Your task to perform on an android device: Search for vegetarian restaurants on Maps Image 0: 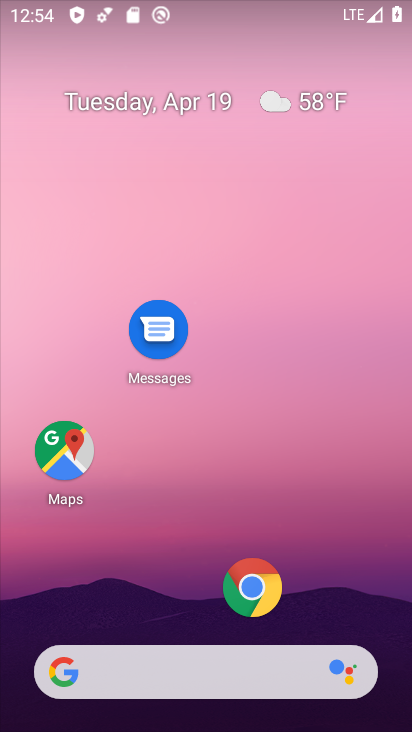
Step 0: drag from (179, 547) to (157, 87)
Your task to perform on an android device: Search for vegetarian restaurants on Maps Image 1: 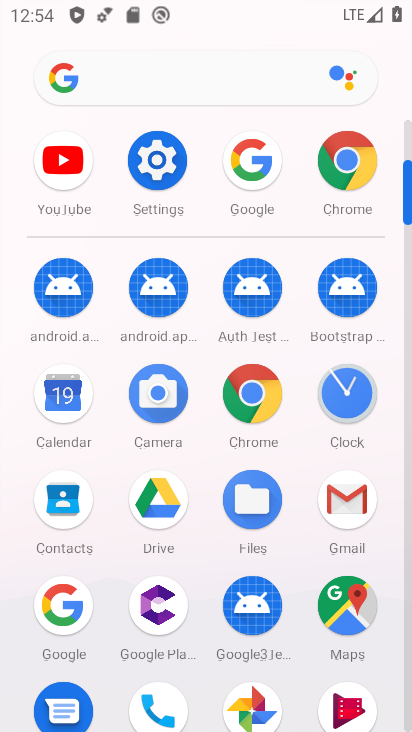
Step 1: click (345, 605)
Your task to perform on an android device: Search for vegetarian restaurants on Maps Image 2: 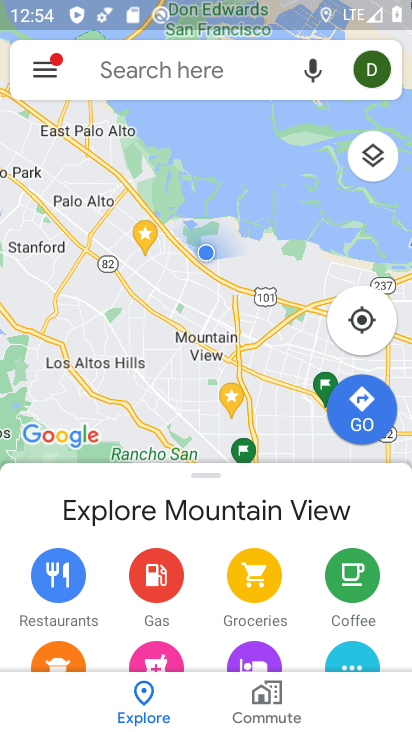
Step 2: click (155, 66)
Your task to perform on an android device: Search for vegetarian restaurants on Maps Image 3: 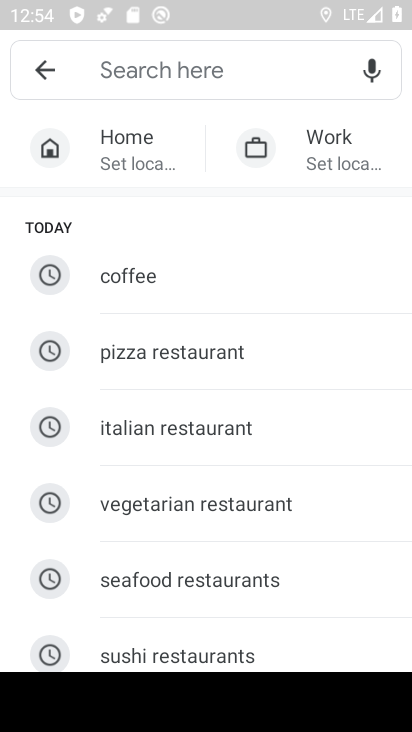
Step 3: click (176, 510)
Your task to perform on an android device: Search for vegetarian restaurants on Maps Image 4: 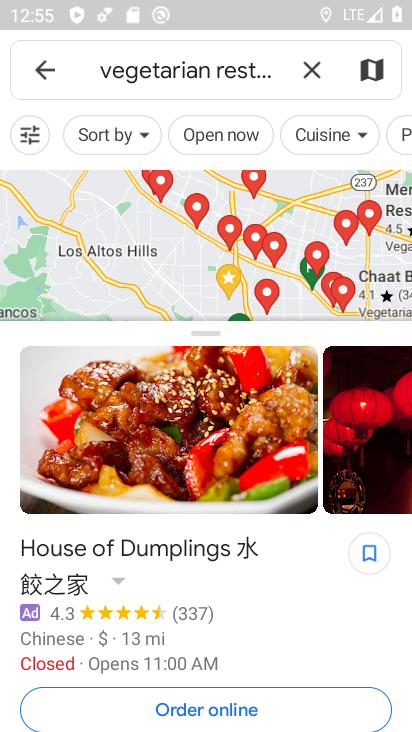
Step 4: task complete